Your task to perform on an android device: Open battery settings Image 0: 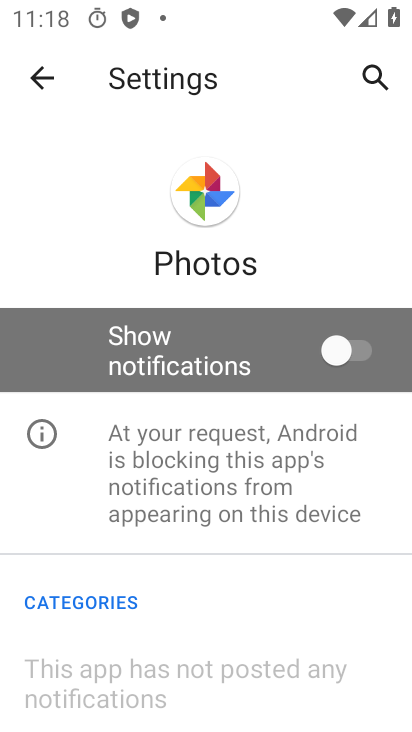
Step 0: press home button
Your task to perform on an android device: Open battery settings Image 1: 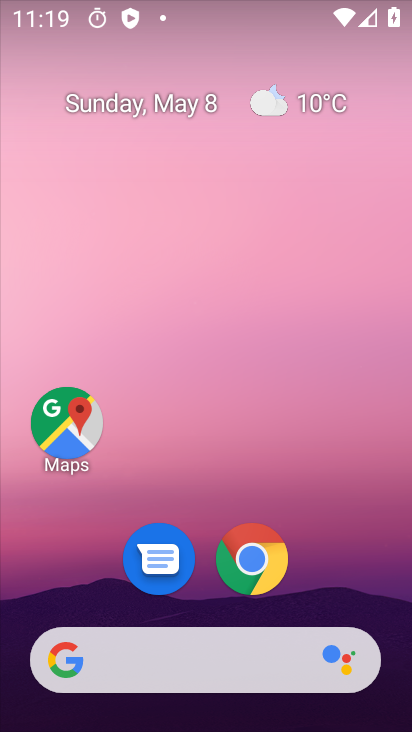
Step 1: drag from (206, 569) to (212, 78)
Your task to perform on an android device: Open battery settings Image 2: 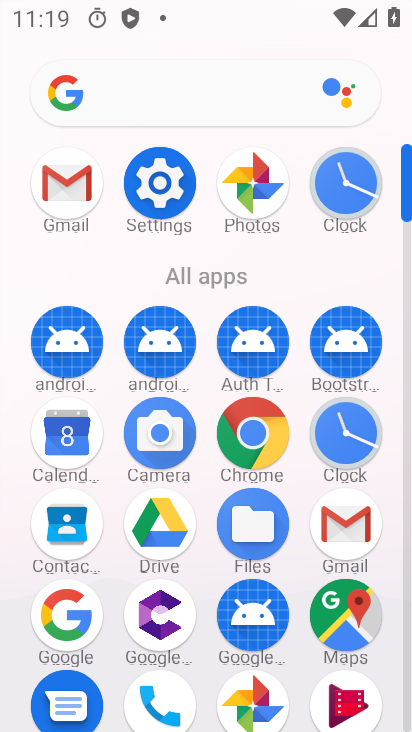
Step 2: click (178, 208)
Your task to perform on an android device: Open battery settings Image 3: 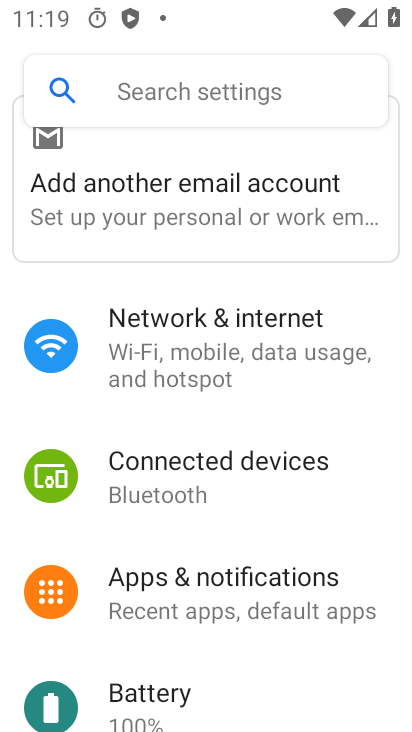
Step 3: drag from (240, 597) to (252, 210)
Your task to perform on an android device: Open battery settings Image 4: 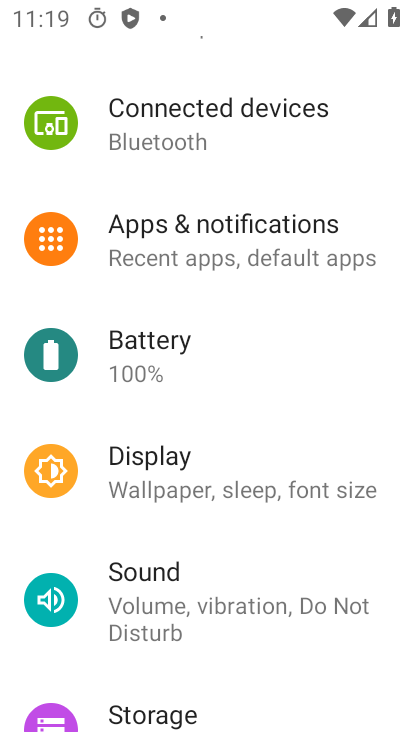
Step 4: click (148, 349)
Your task to perform on an android device: Open battery settings Image 5: 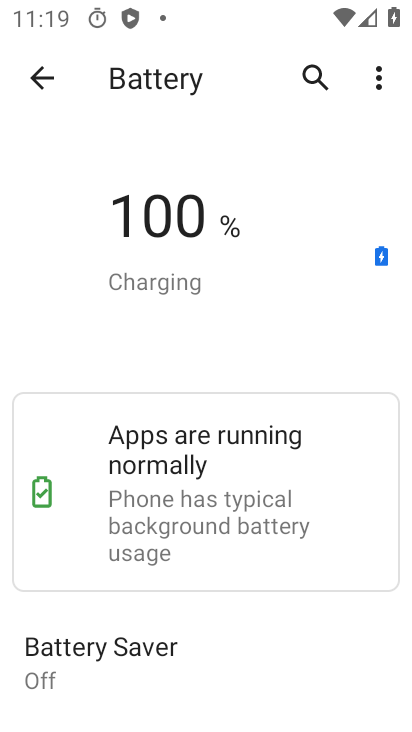
Step 5: task complete